Your task to perform on an android device: Open ESPN.com Image 0: 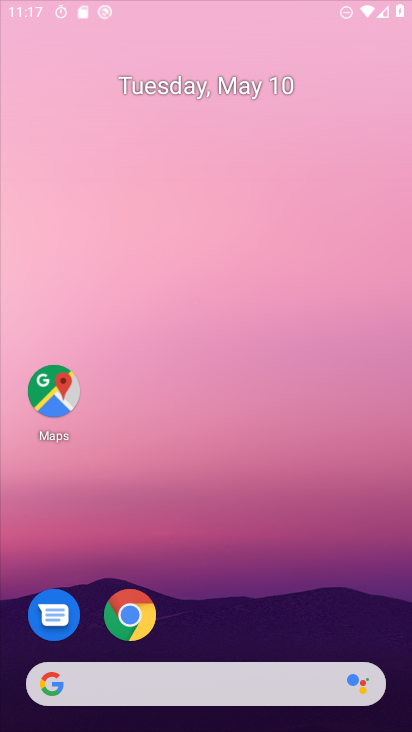
Step 0: click (264, 167)
Your task to perform on an android device: Open ESPN.com Image 1: 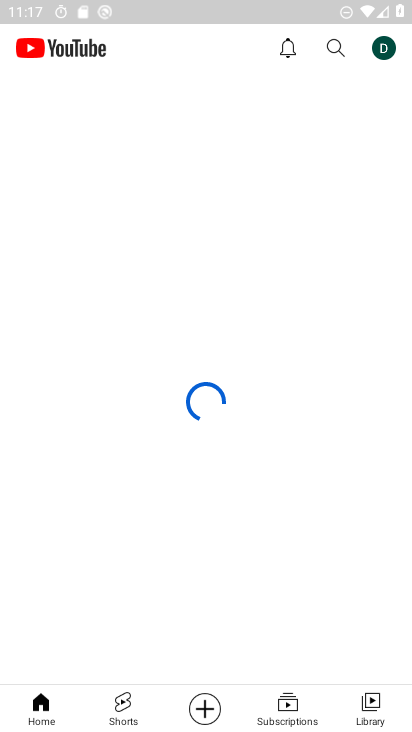
Step 1: press home button
Your task to perform on an android device: Open ESPN.com Image 2: 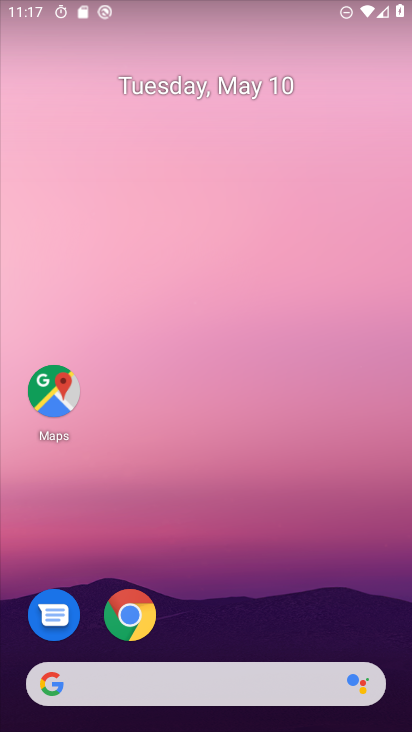
Step 2: drag from (209, 649) to (272, 146)
Your task to perform on an android device: Open ESPN.com Image 3: 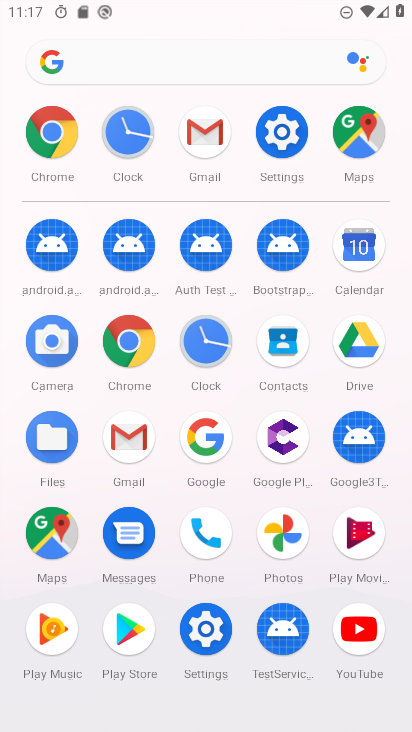
Step 3: click (171, 71)
Your task to perform on an android device: Open ESPN.com Image 4: 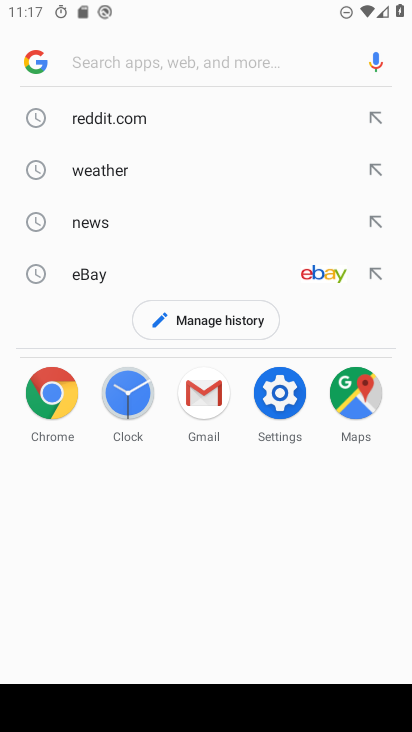
Step 4: type "espn.com"
Your task to perform on an android device: Open ESPN.com Image 5: 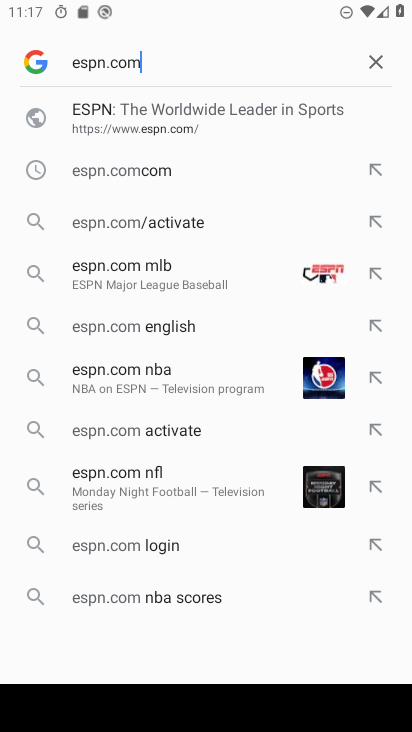
Step 5: click (197, 129)
Your task to perform on an android device: Open ESPN.com Image 6: 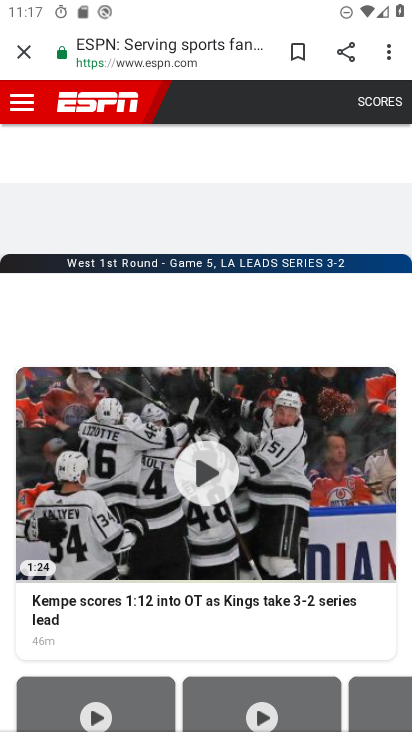
Step 6: task complete